Your task to perform on an android device: turn pop-ups off in chrome Image 0: 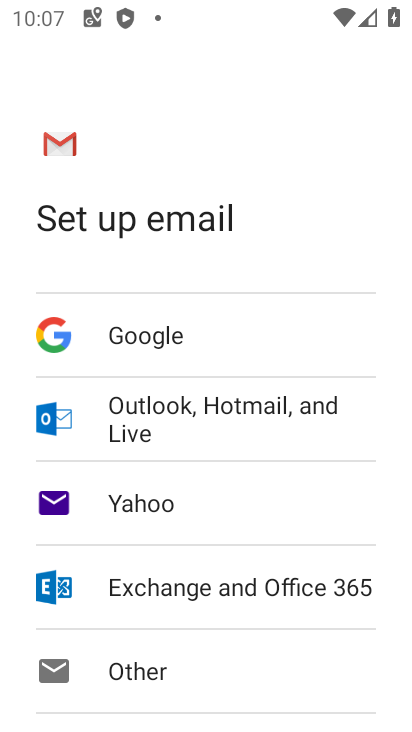
Step 0: press home button
Your task to perform on an android device: turn pop-ups off in chrome Image 1: 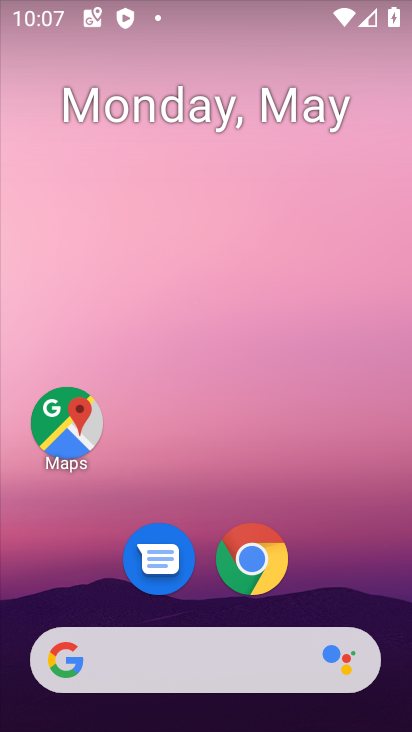
Step 1: click (257, 564)
Your task to perform on an android device: turn pop-ups off in chrome Image 2: 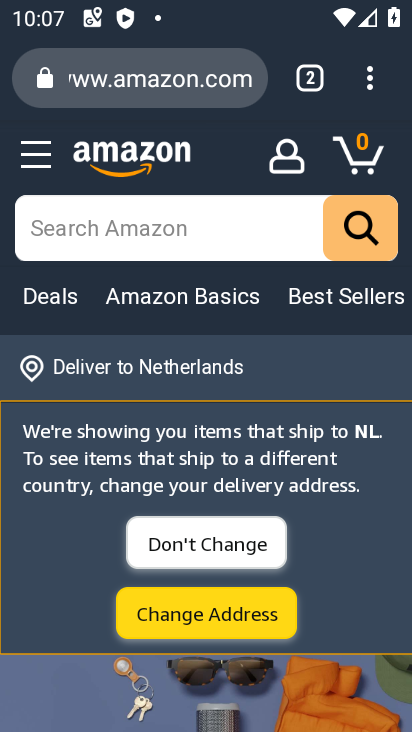
Step 2: click (370, 67)
Your task to perform on an android device: turn pop-ups off in chrome Image 3: 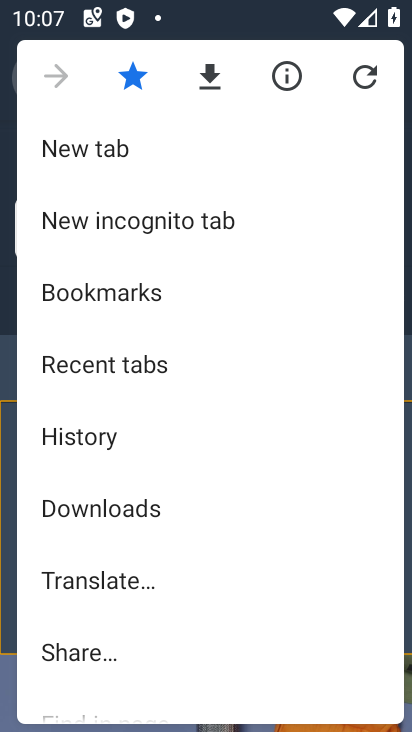
Step 3: drag from (194, 639) to (166, 208)
Your task to perform on an android device: turn pop-ups off in chrome Image 4: 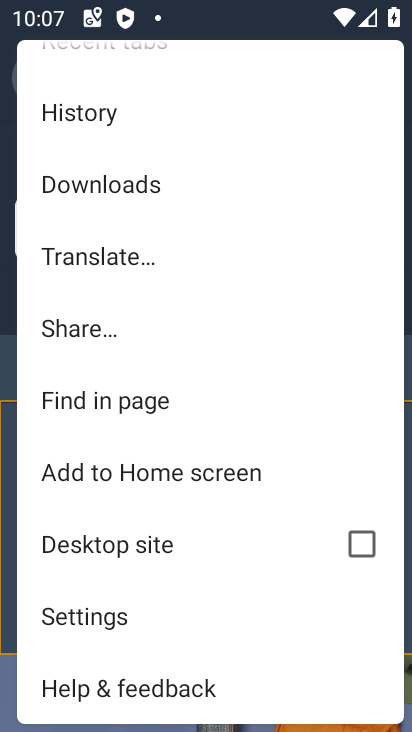
Step 4: click (105, 607)
Your task to perform on an android device: turn pop-ups off in chrome Image 5: 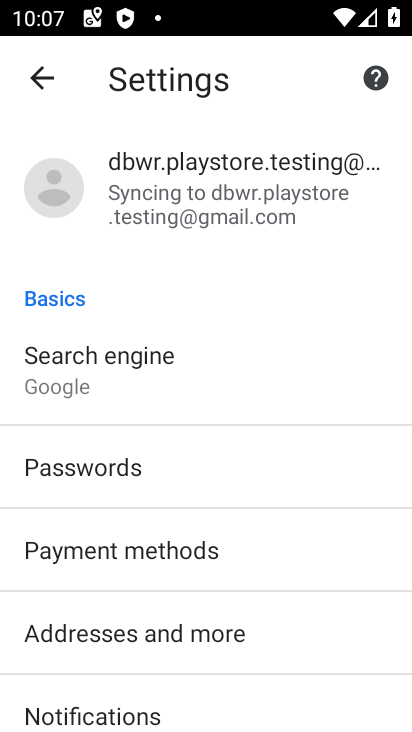
Step 5: drag from (278, 578) to (235, 127)
Your task to perform on an android device: turn pop-ups off in chrome Image 6: 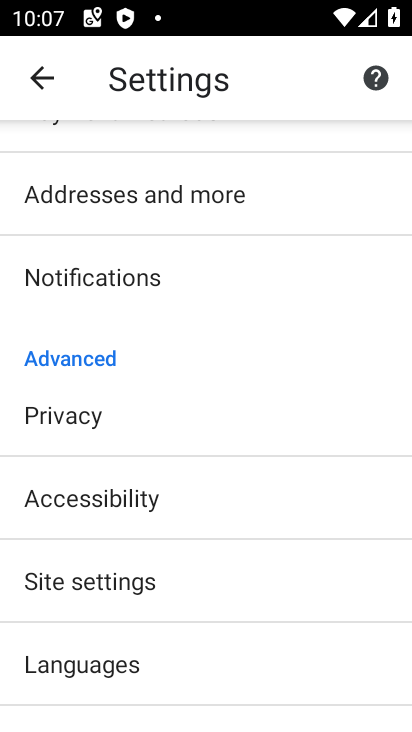
Step 6: drag from (240, 538) to (221, 245)
Your task to perform on an android device: turn pop-ups off in chrome Image 7: 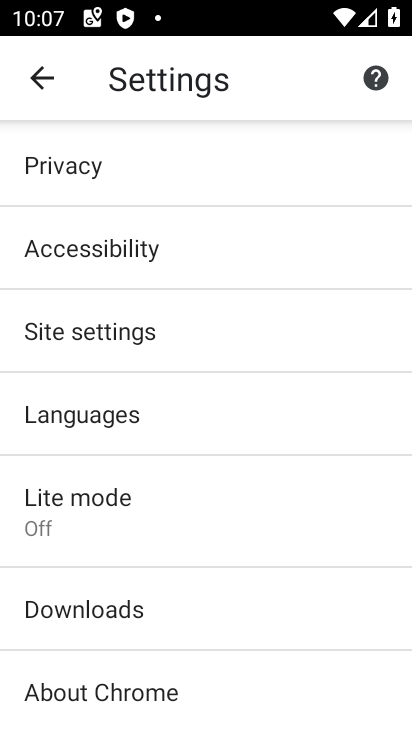
Step 7: click (97, 320)
Your task to perform on an android device: turn pop-ups off in chrome Image 8: 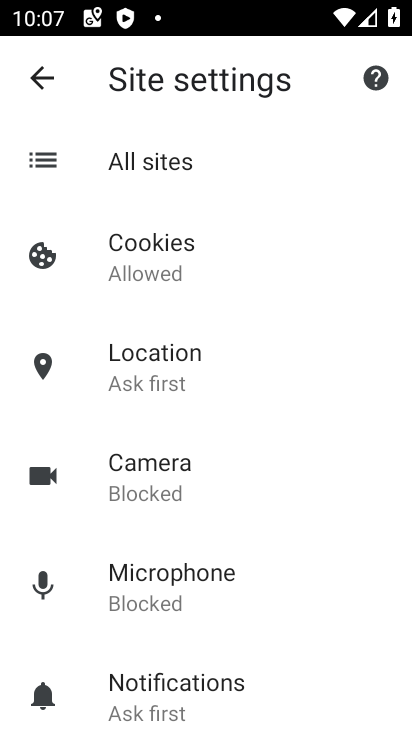
Step 8: drag from (246, 537) to (217, 248)
Your task to perform on an android device: turn pop-ups off in chrome Image 9: 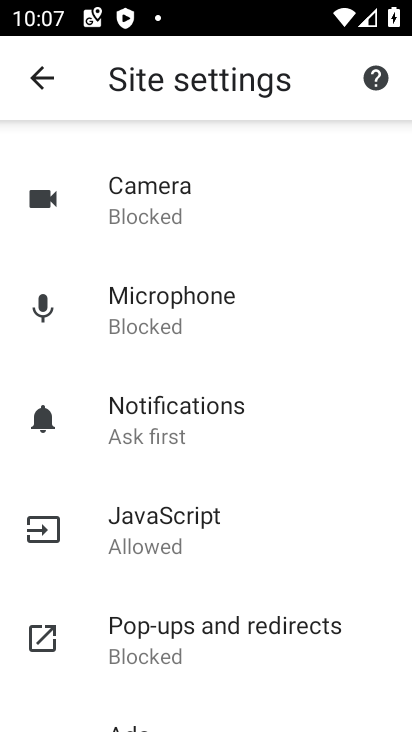
Step 9: click (192, 634)
Your task to perform on an android device: turn pop-ups off in chrome Image 10: 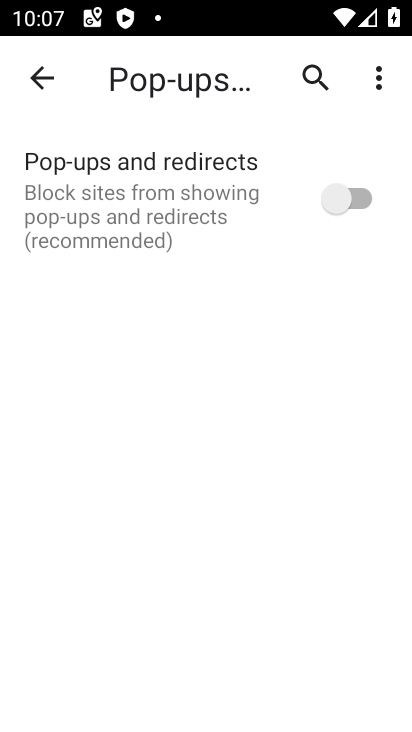
Step 10: task complete